Your task to perform on an android device: turn on notifications settings in the gmail app Image 0: 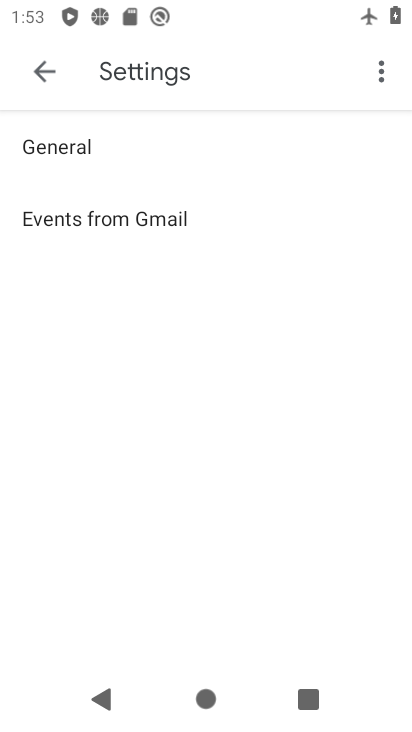
Step 0: press home button
Your task to perform on an android device: turn on notifications settings in the gmail app Image 1: 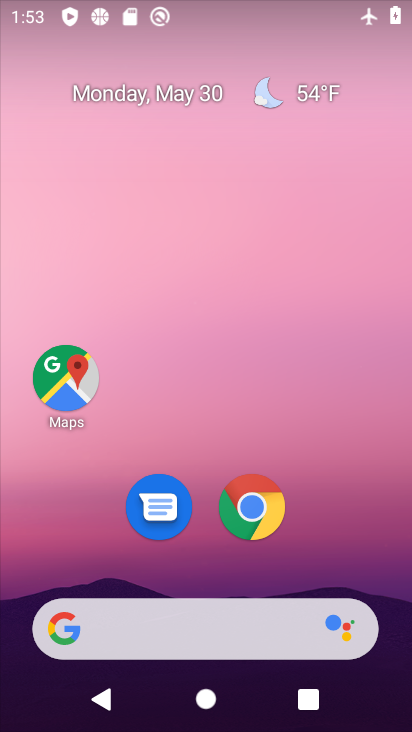
Step 1: drag from (362, 173) to (320, 70)
Your task to perform on an android device: turn on notifications settings in the gmail app Image 2: 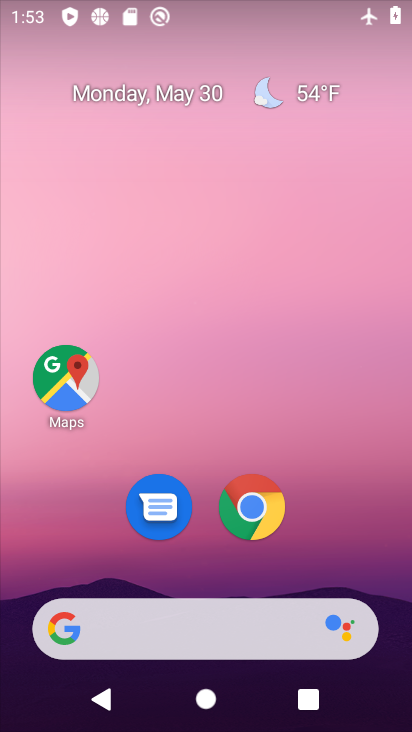
Step 2: drag from (392, 641) to (292, 60)
Your task to perform on an android device: turn on notifications settings in the gmail app Image 3: 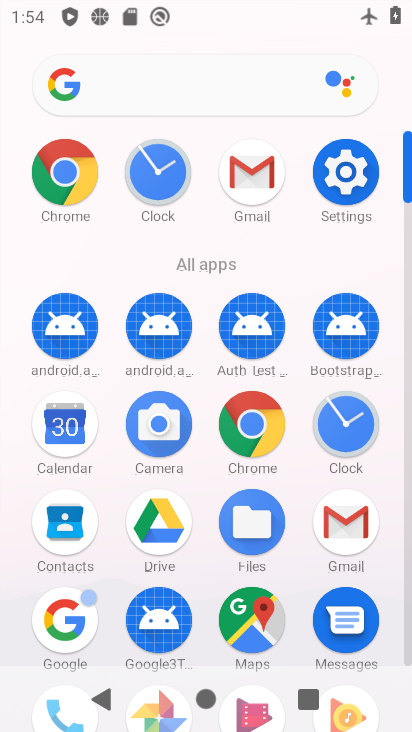
Step 3: click (337, 534)
Your task to perform on an android device: turn on notifications settings in the gmail app Image 4: 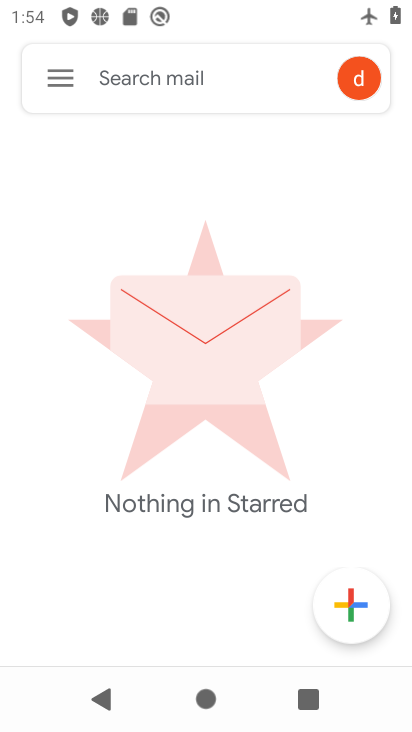
Step 4: click (65, 85)
Your task to perform on an android device: turn on notifications settings in the gmail app Image 5: 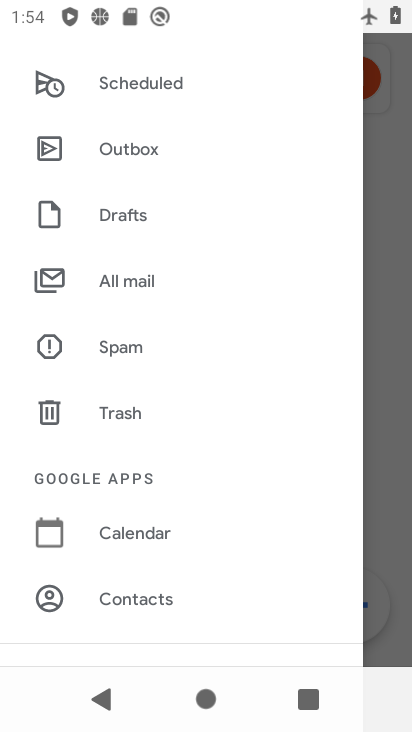
Step 5: drag from (180, 190) to (190, 564)
Your task to perform on an android device: turn on notifications settings in the gmail app Image 6: 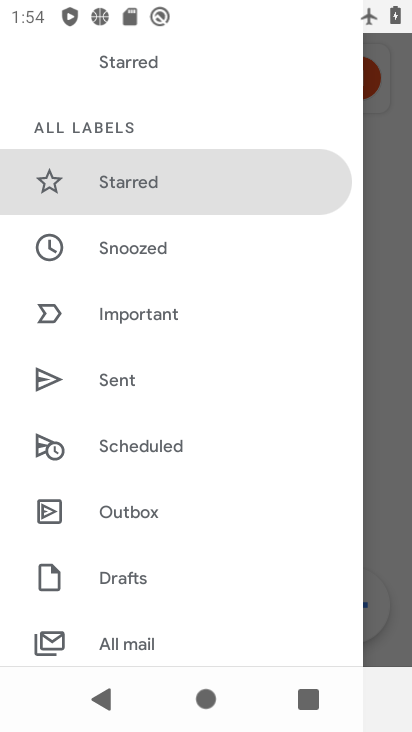
Step 6: drag from (189, 566) to (134, 16)
Your task to perform on an android device: turn on notifications settings in the gmail app Image 7: 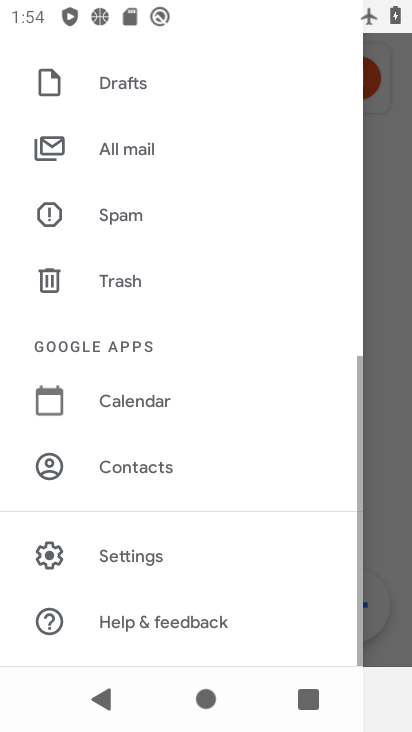
Step 7: click (169, 568)
Your task to perform on an android device: turn on notifications settings in the gmail app Image 8: 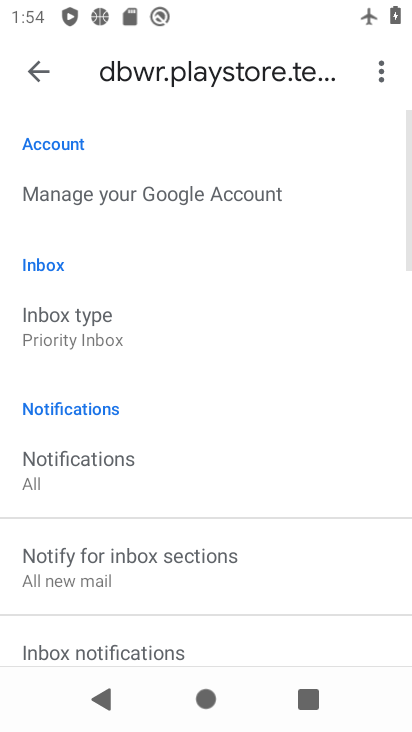
Step 8: click (148, 464)
Your task to perform on an android device: turn on notifications settings in the gmail app Image 9: 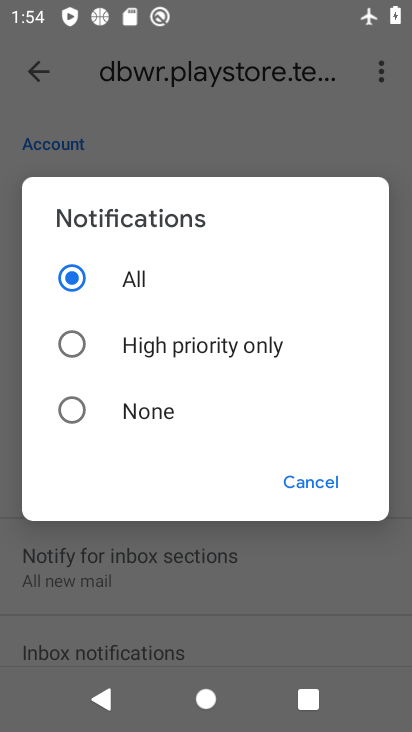
Step 9: task complete